Your task to perform on an android device: check data usage Image 0: 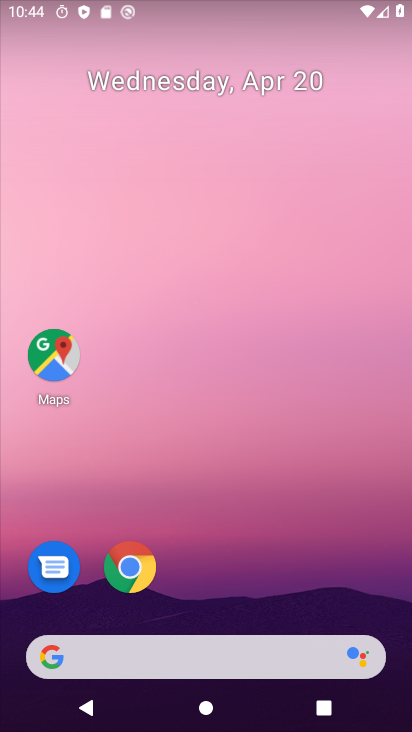
Step 0: drag from (298, 617) to (321, 200)
Your task to perform on an android device: check data usage Image 1: 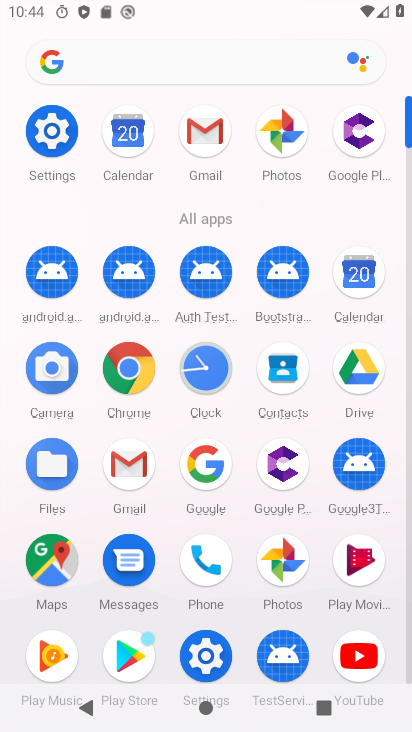
Step 1: click (222, 653)
Your task to perform on an android device: check data usage Image 2: 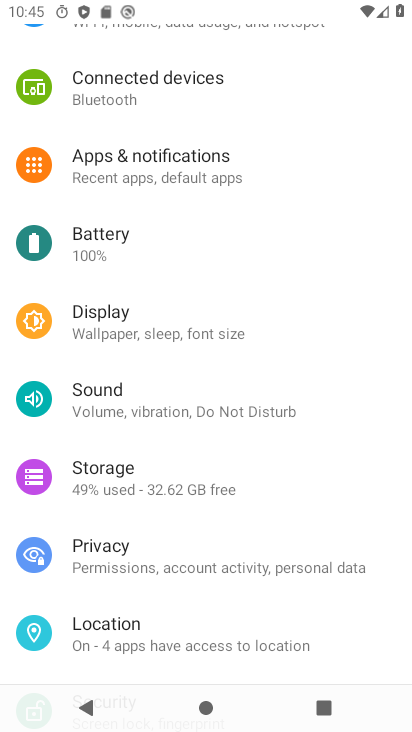
Step 2: drag from (195, 589) to (187, 221)
Your task to perform on an android device: check data usage Image 3: 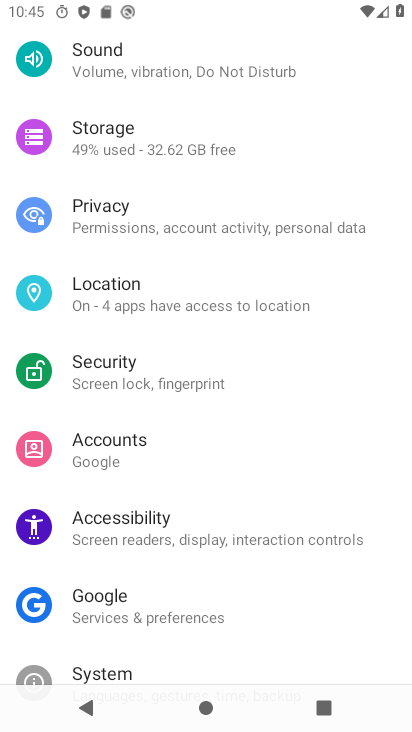
Step 3: drag from (245, 216) to (245, 584)
Your task to perform on an android device: check data usage Image 4: 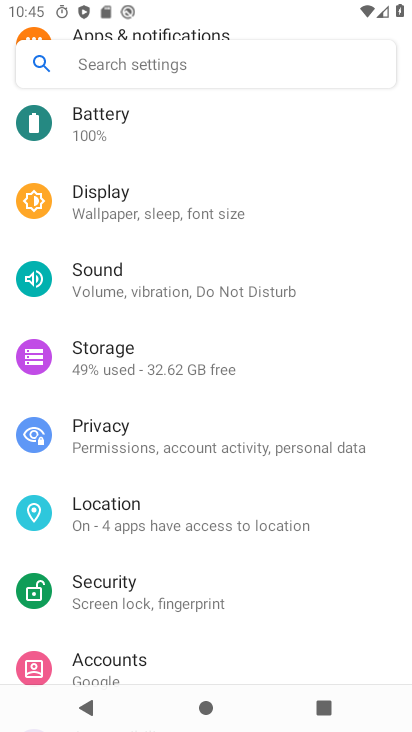
Step 4: drag from (238, 273) to (229, 578)
Your task to perform on an android device: check data usage Image 5: 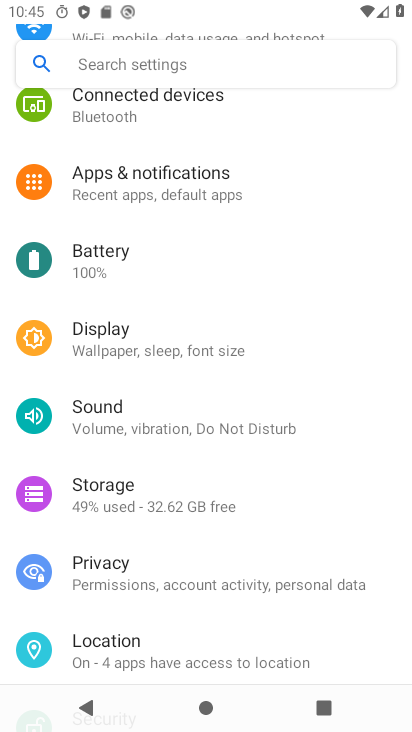
Step 5: drag from (259, 170) to (249, 571)
Your task to perform on an android device: check data usage Image 6: 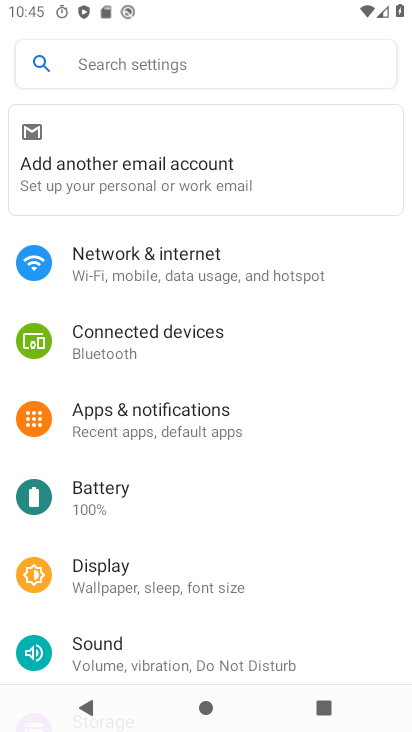
Step 6: click (238, 287)
Your task to perform on an android device: check data usage Image 7: 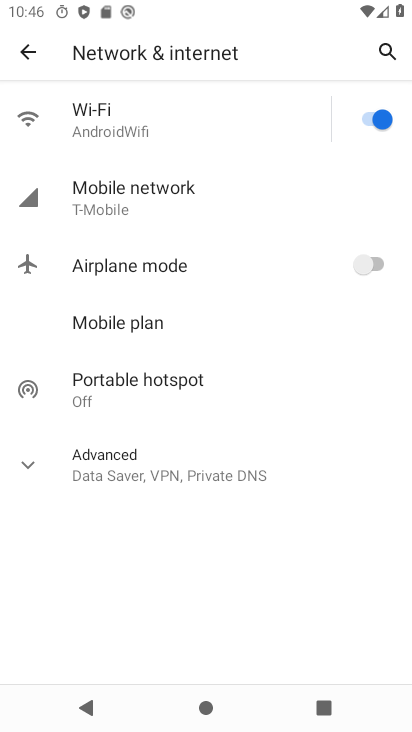
Step 7: click (174, 203)
Your task to perform on an android device: check data usage Image 8: 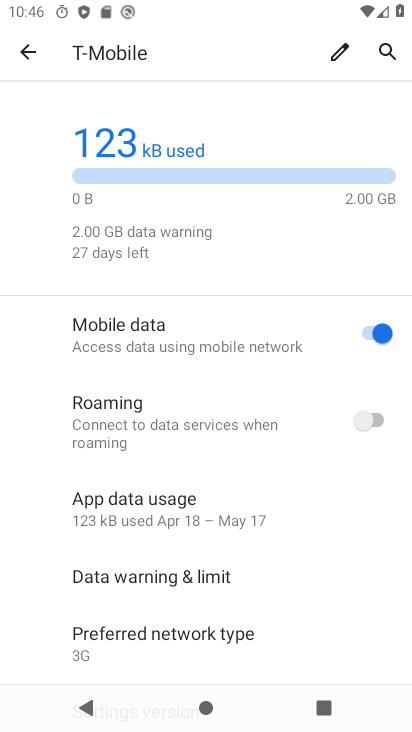
Step 8: click (219, 504)
Your task to perform on an android device: check data usage Image 9: 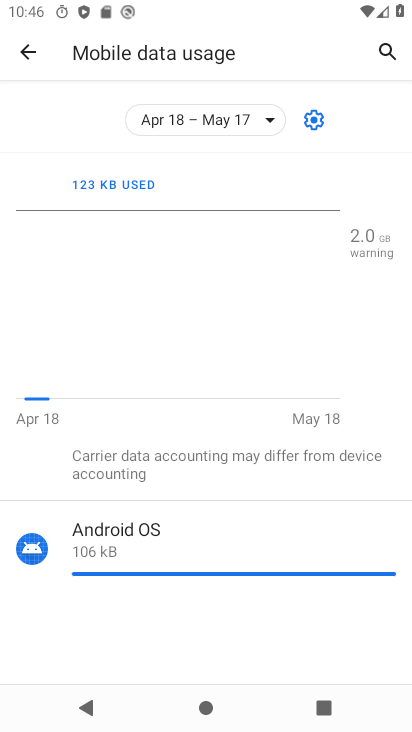
Step 9: task complete